Your task to perform on an android device: Add razer thresher to the cart on amazon, then select checkout. Image 0: 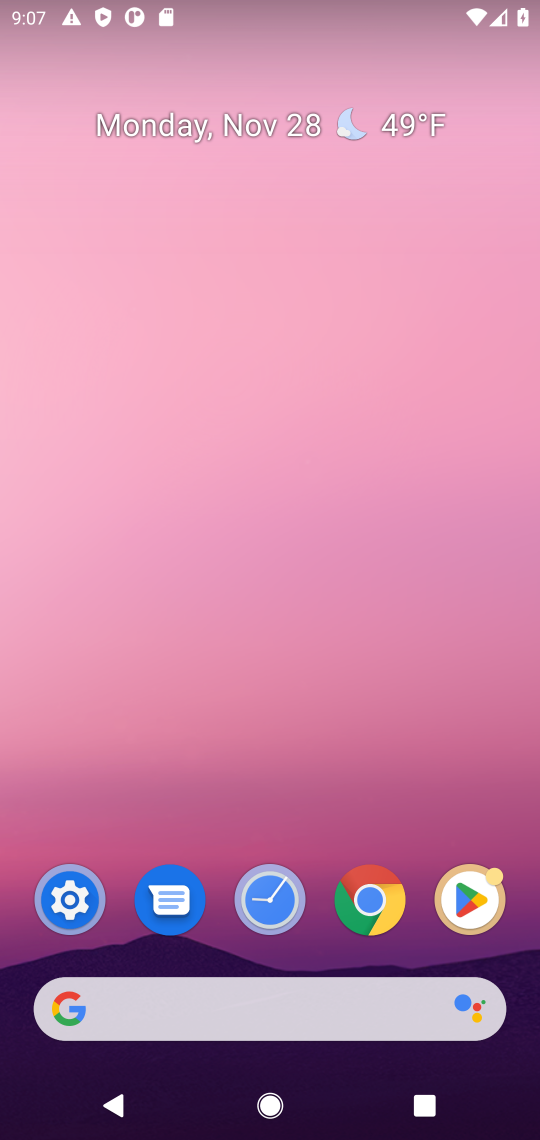
Step 0: click (190, 1035)
Your task to perform on an android device: Add razer thresher to the cart on amazon, then select checkout. Image 1: 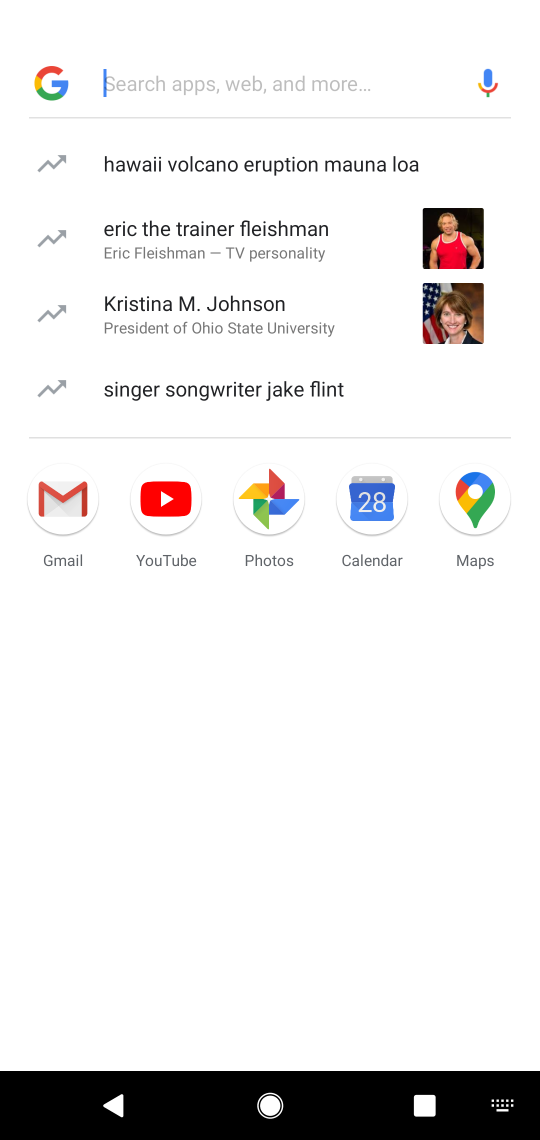
Step 1: click (150, 72)
Your task to perform on an android device: Add razer thresher to the cart on amazon, then select checkout. Image 2: 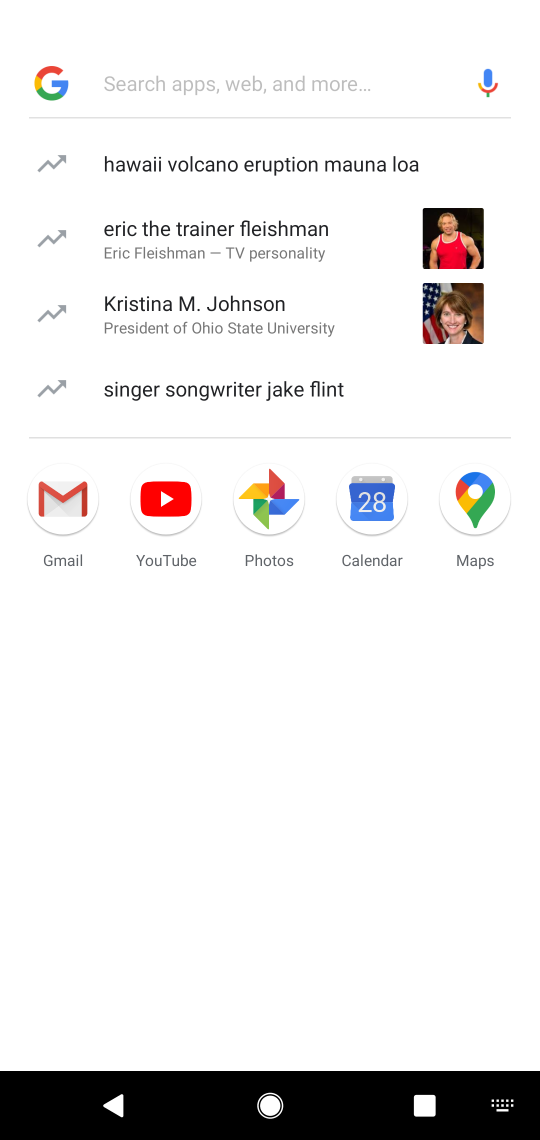
Step 2: click (150, 72)
Your task to perform on an android device: Add razer thresher to the cart on amazon, then select checkout. Image 3: 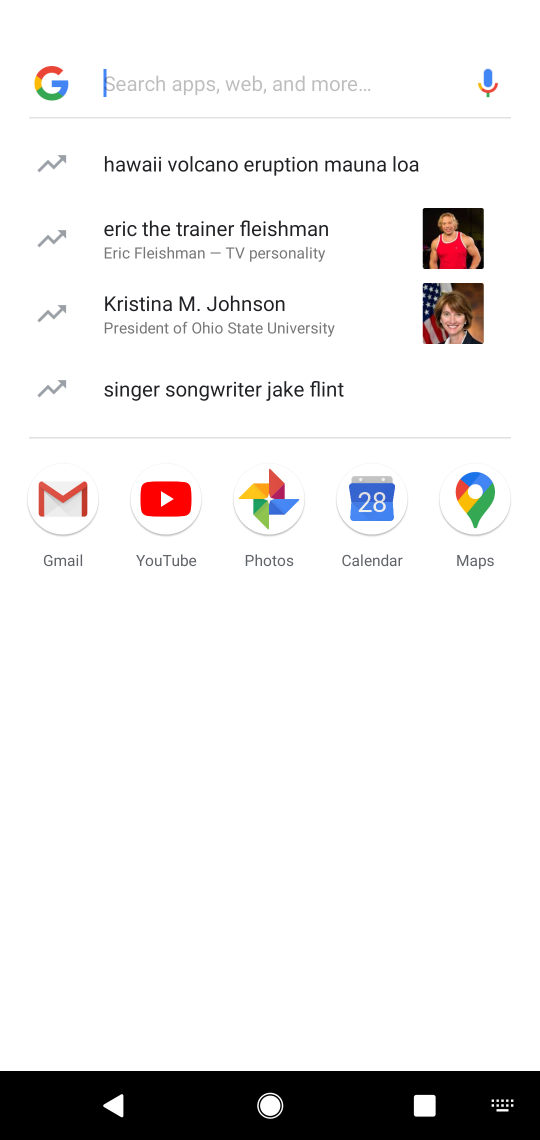
Step 3: type "mazon"
Your task to perform on an android device: Add razer thresher to the cart on amazon, then select checkout. Image 4: 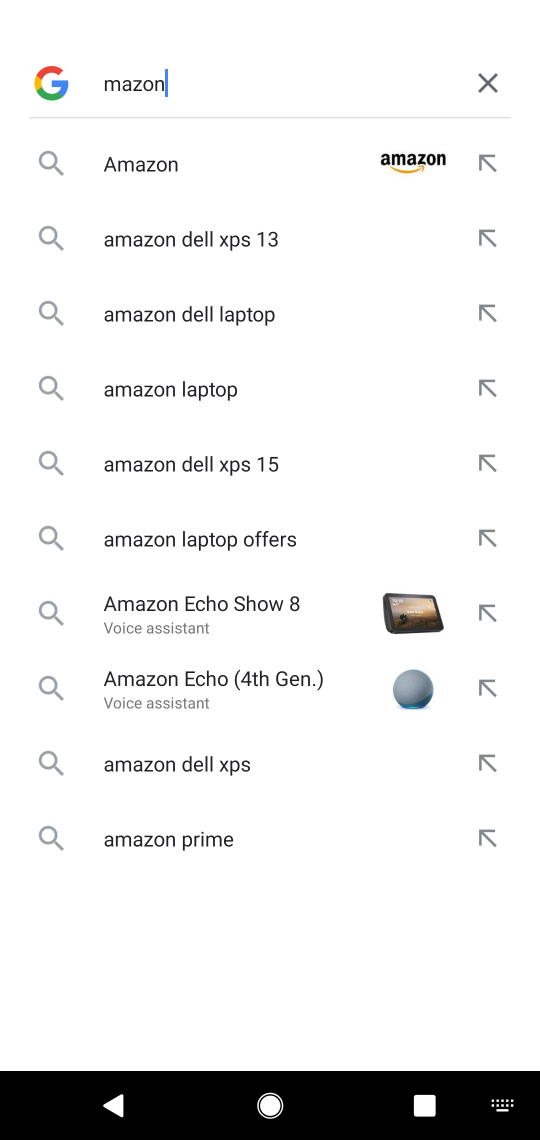
Step 4: click (200, 179)
Your task to perform on an android device: Add razer thresher to the cart on amazon, then select checkout. Image 5: 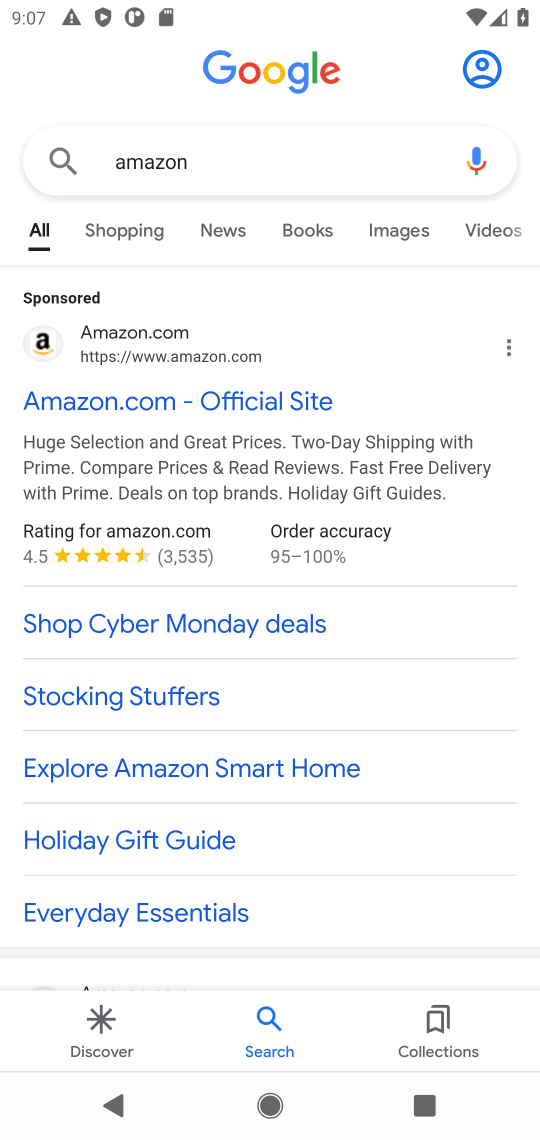
Step 5: click (100, 408)
Your task to perform on an android device: Add razer thresher to the cart on amazon, then select checkout. Image 6: 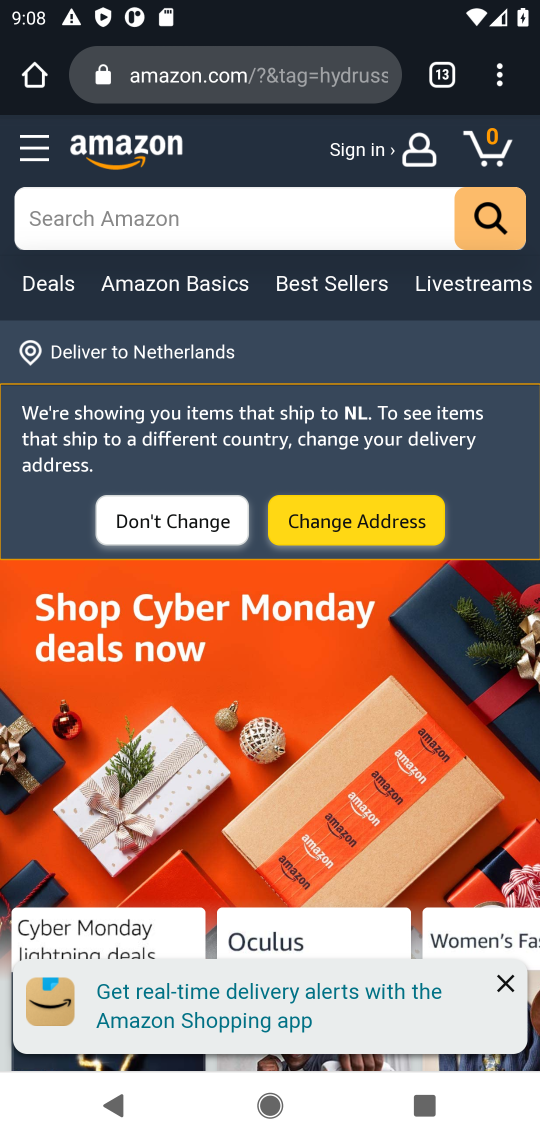
Step 6: click (182, 240)
Your task to perform on an android device: Add razer thresher to the cart on amazon, then select checkout. Image 7: 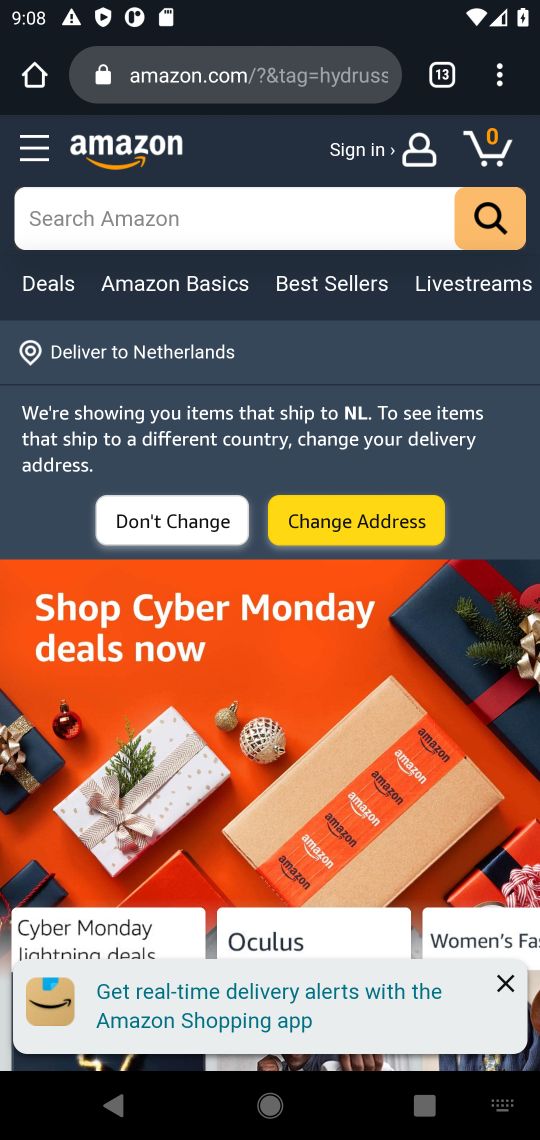
Step 7: type "razer thresher"
Your task to perform on an android device: Add razer thresher to the cart on amazon, then select checkout. Image 8: 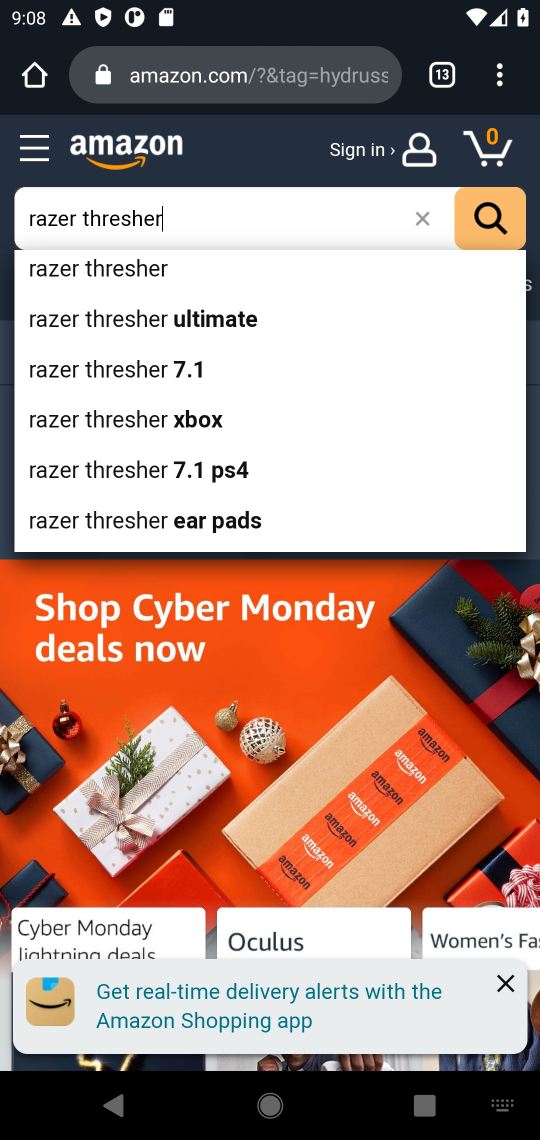
Step 8: click (175, 283)
Your task to perform on an android device: Add razer thresher to the cart on amazon, then select checkout. Image 9: 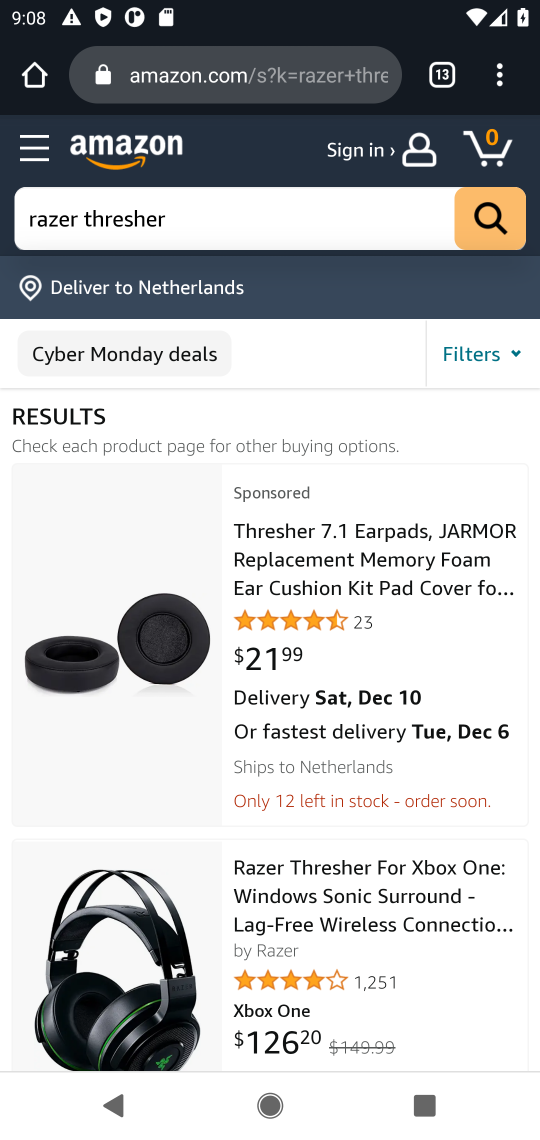
Step 9: task complete